Your task to perform on an android device: add a contact in the contacts app Image 0: 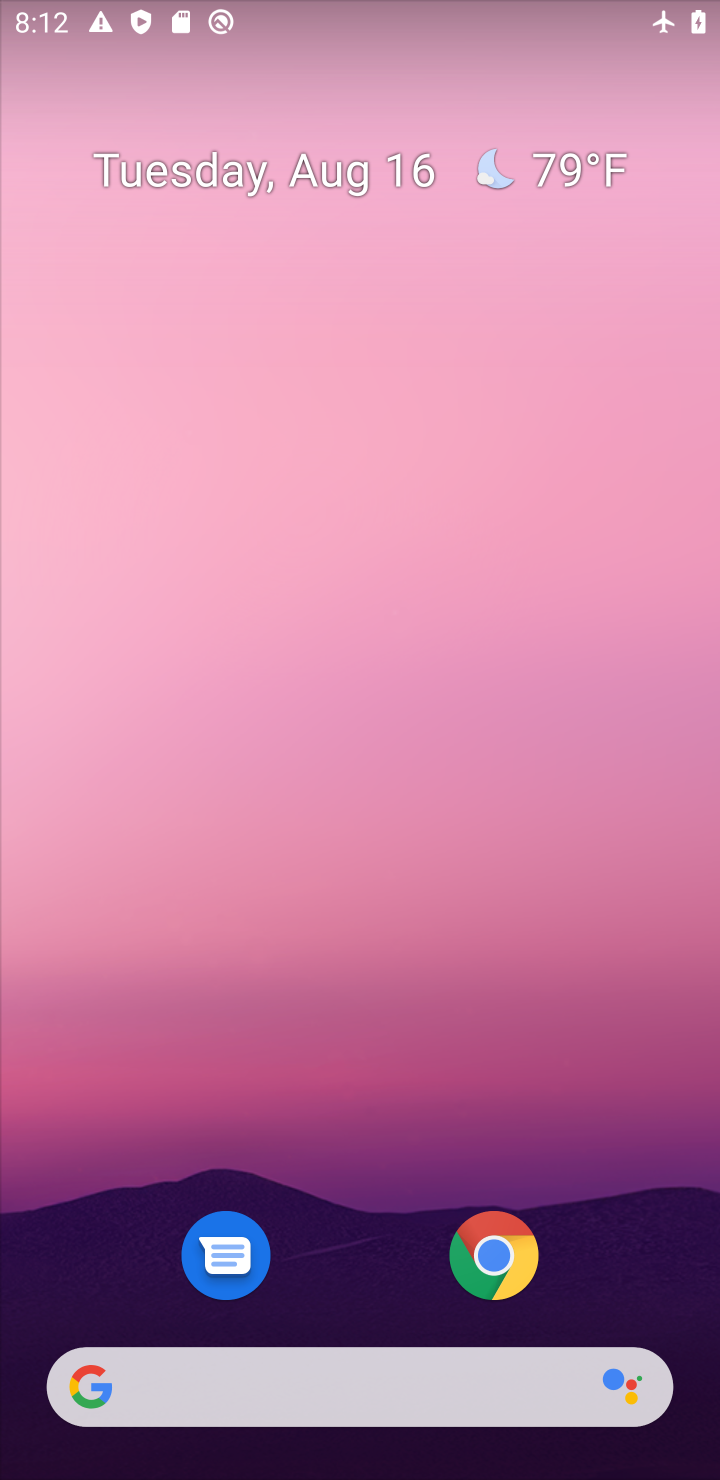
Step 0: drag from (366, 1376) to (281, 20)
Your task to perform on an android device: add a contact in the contacts app Image 1: 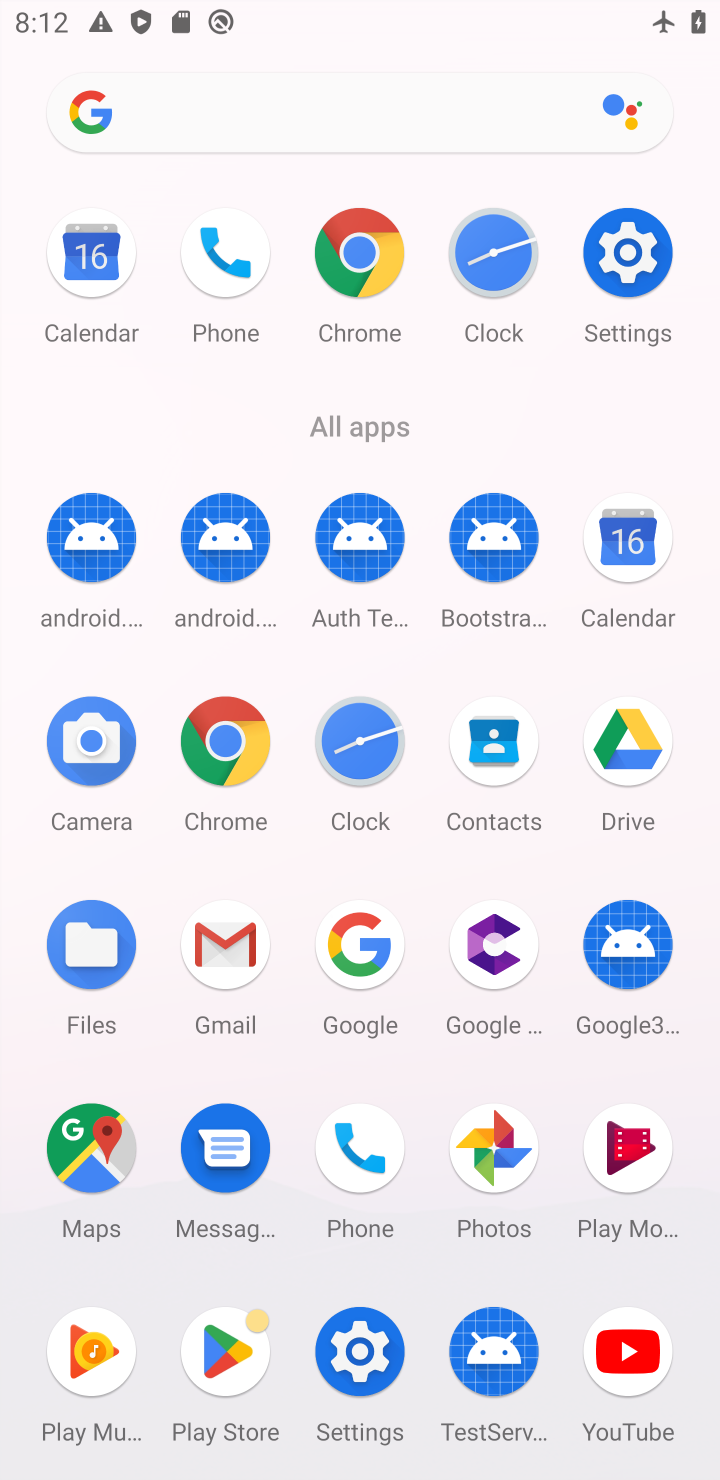
Step 1: click (468, 746)
Your task to perform on an android device: add a contact in the contacts app Image 2: 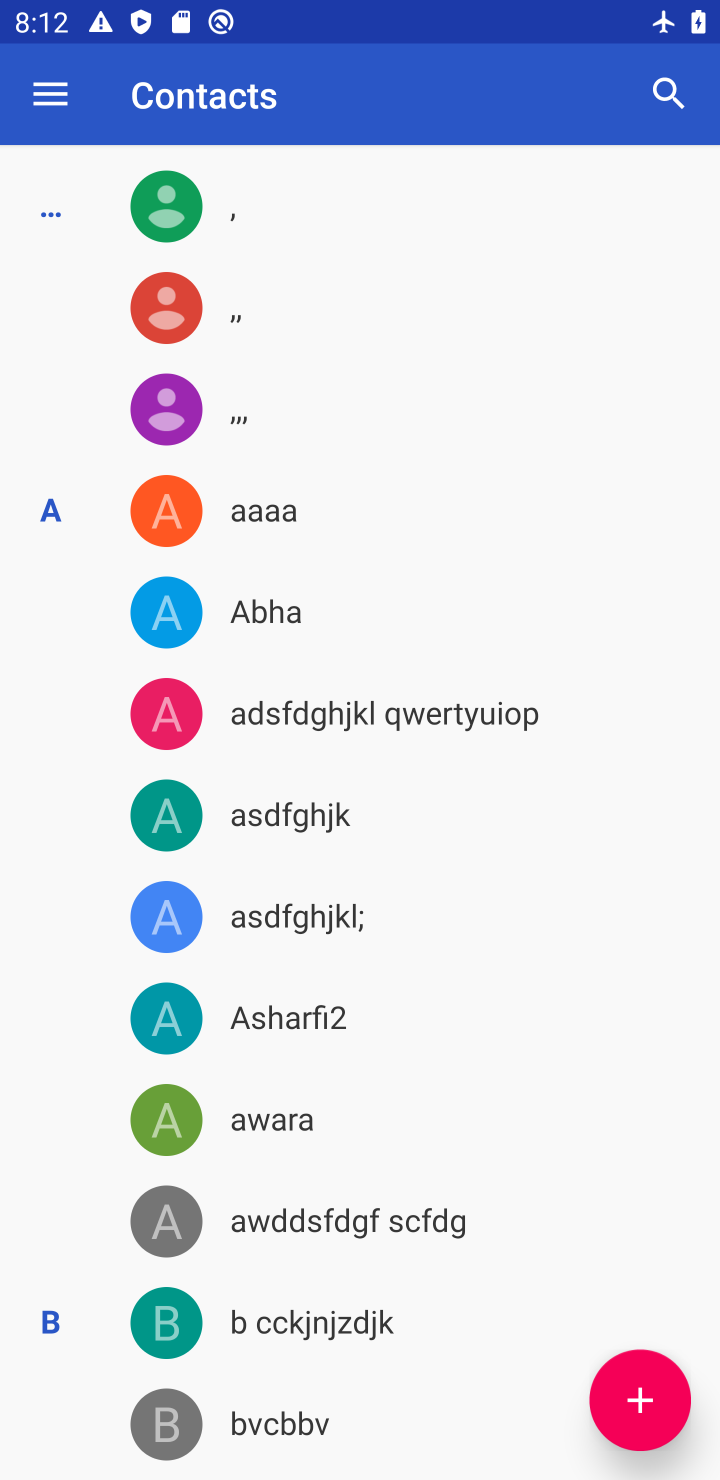
Step 2: click (652, 1406)
Your task to perform on an android device: add a contact in the contacts app Image 3: 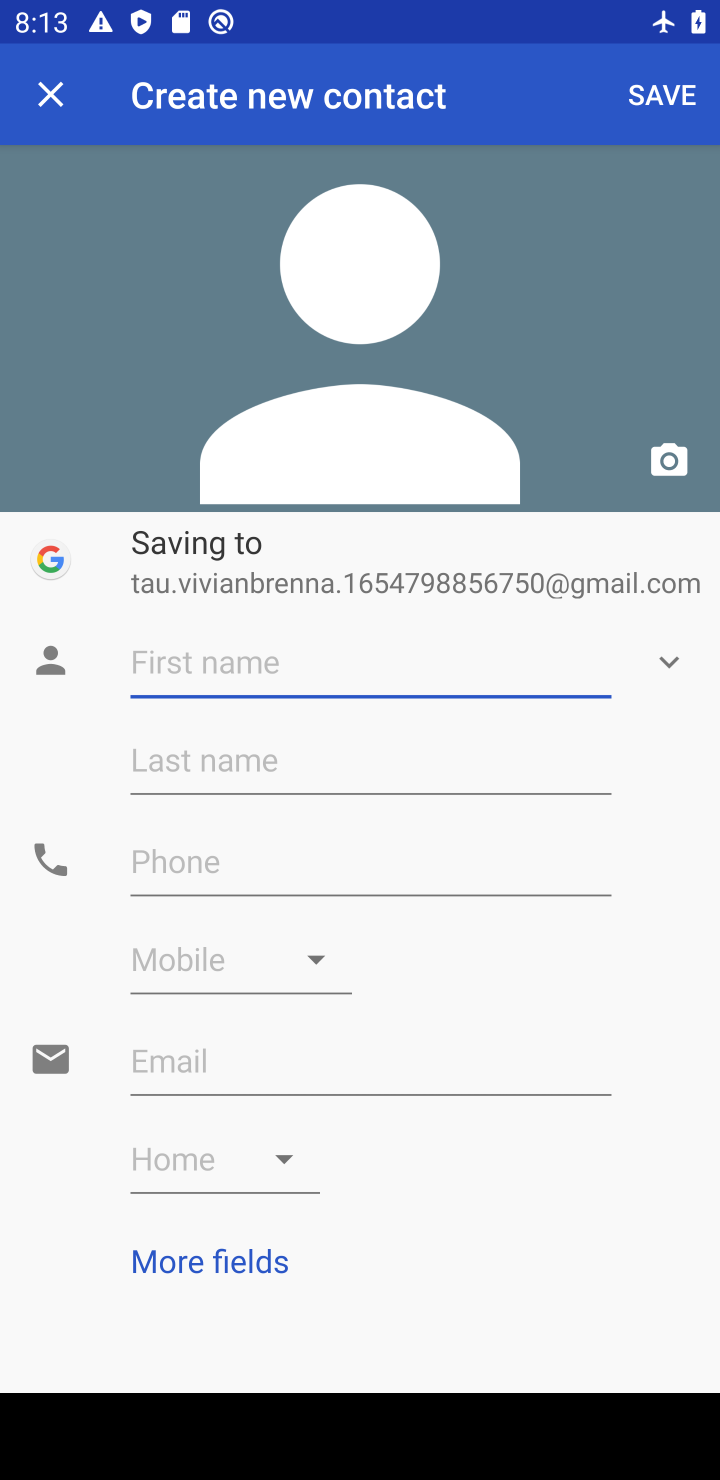
Step 3: type "xcbvfd"
Your task to perform on an android device: add a contact in the contacts app Image 4: 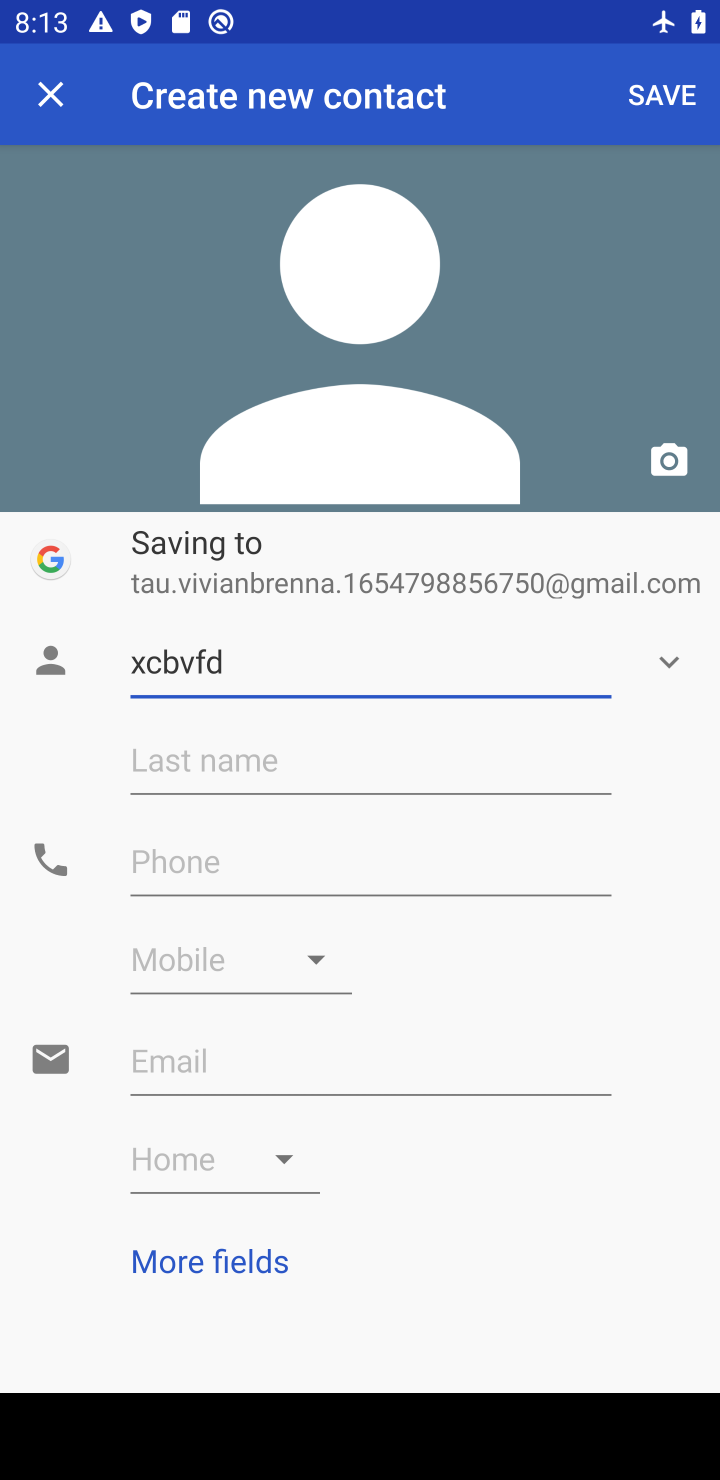
Step 4: click (273, 874)
Your task to perform on an android device: add a contact in the contacts app Image 5: 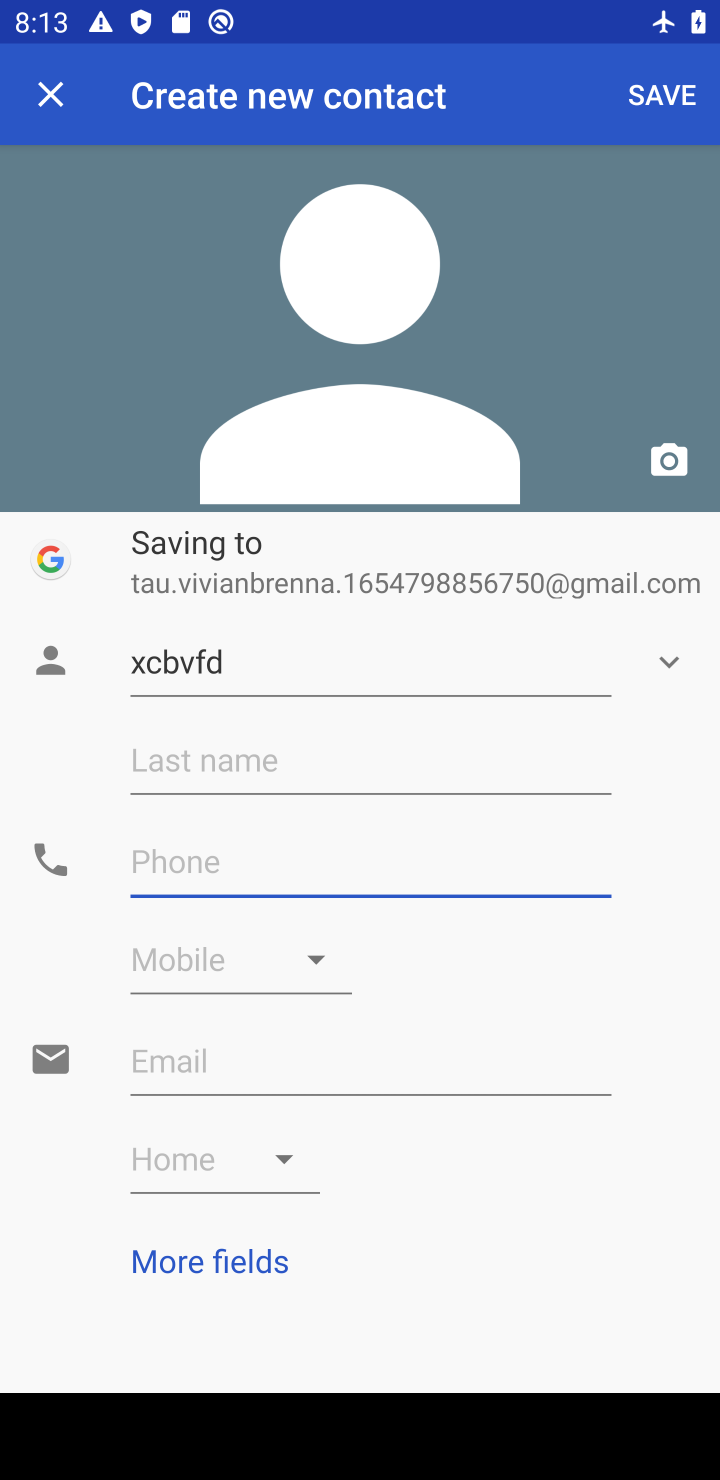
Step 5: type "38453944"
Your task to perform on an android device: add a contact in the contacts app Image 6: 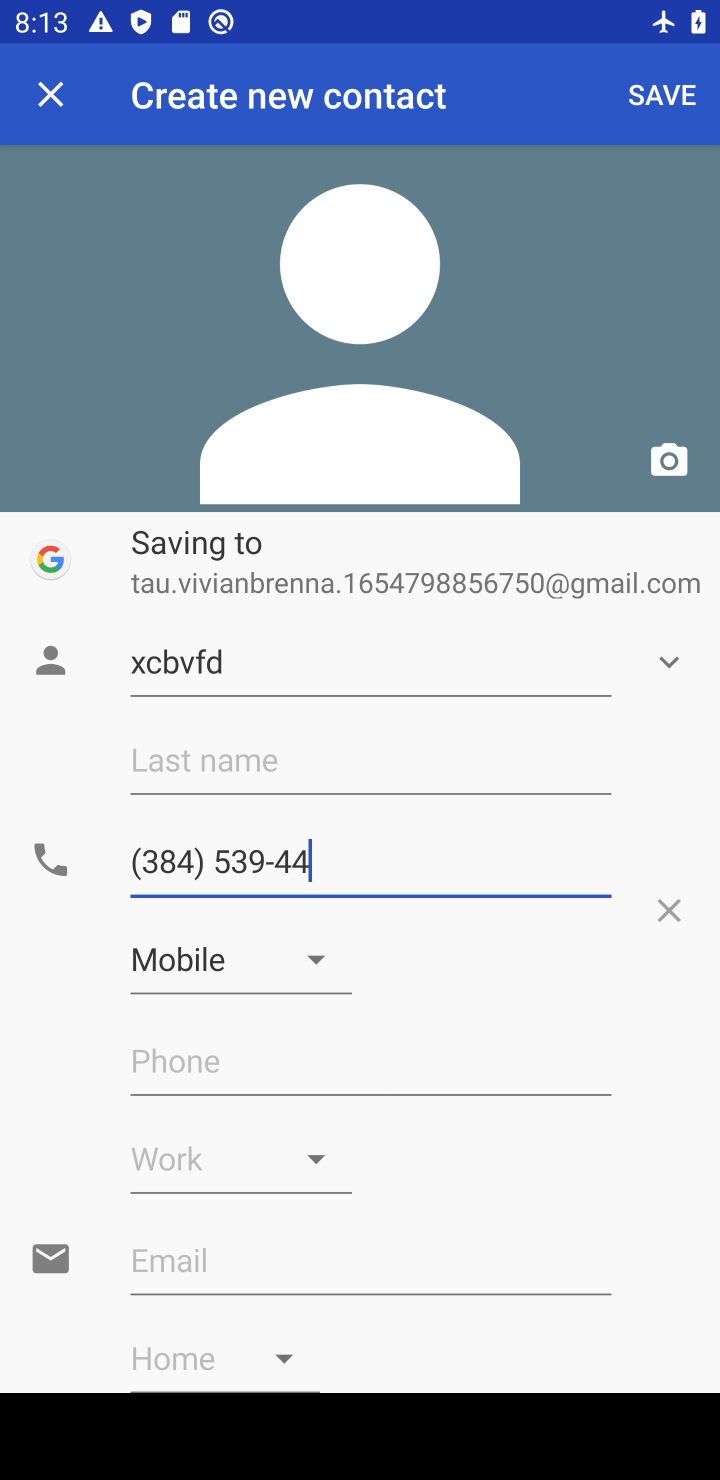
Step 6: click (638, 112)
Your task to perform on an android device: add a contact in the contacts app Image 7: 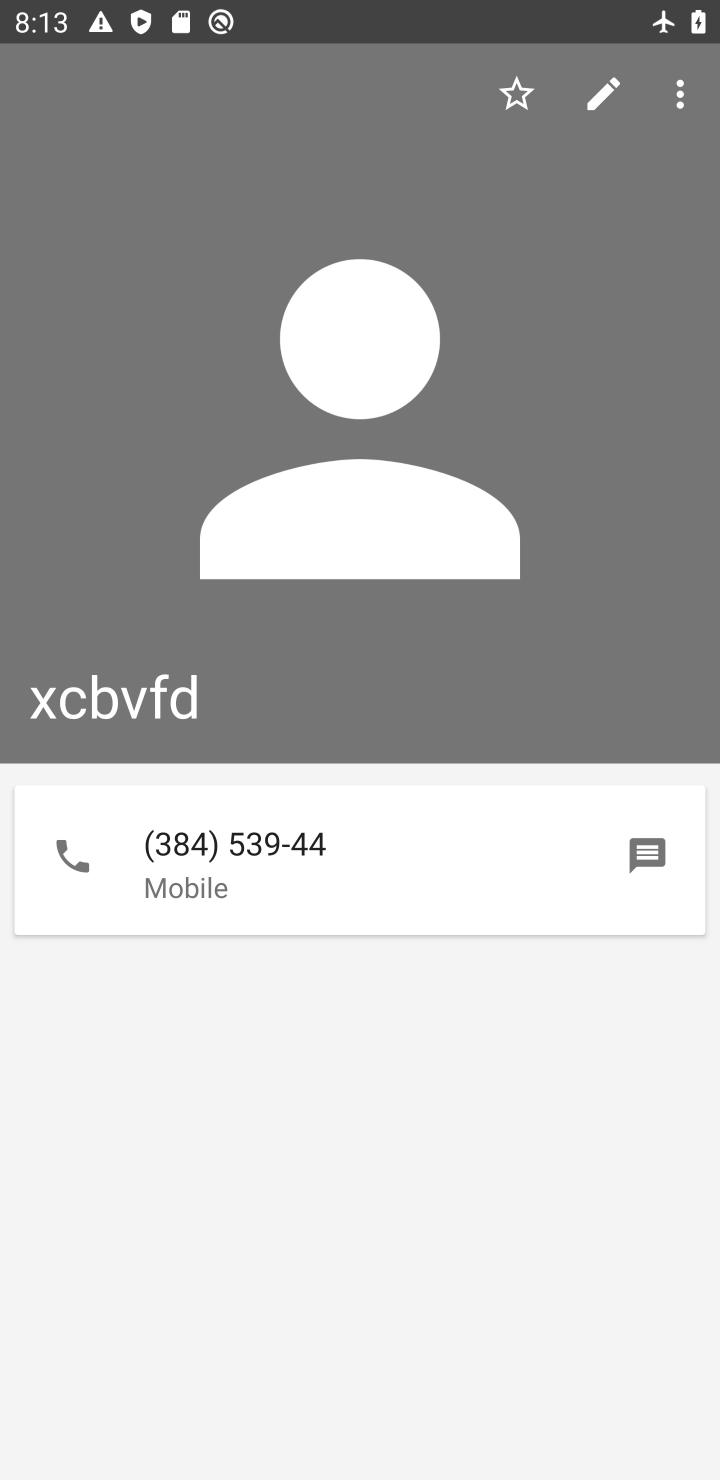
Step 7: task complete